Your task to perform on an android device: turn on bluetooth scan Image 0: 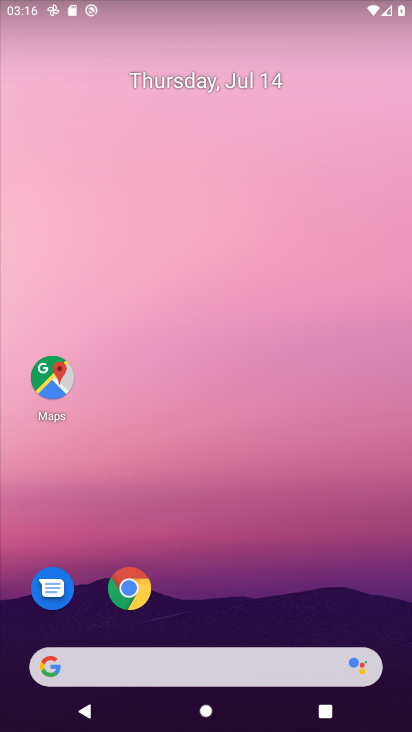
Step 0: drag from (332, 591) to (223, 92)
Your task to perform on an android device: turn on bluetooth scan Image 1: 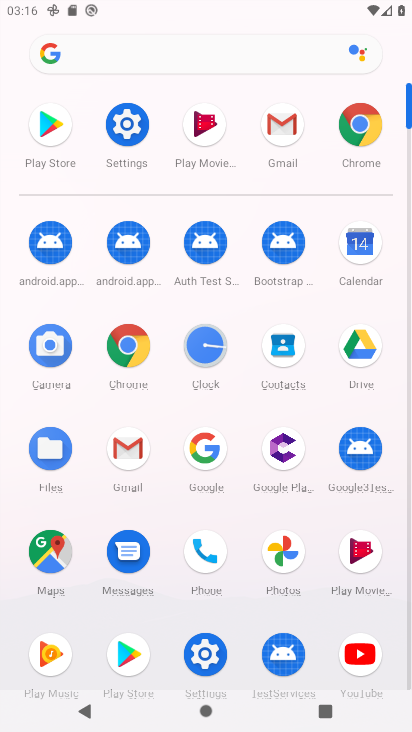
Step 1: click (139, 126)
Your task to perform on an android device: turn on bluetooth scan Image 2: 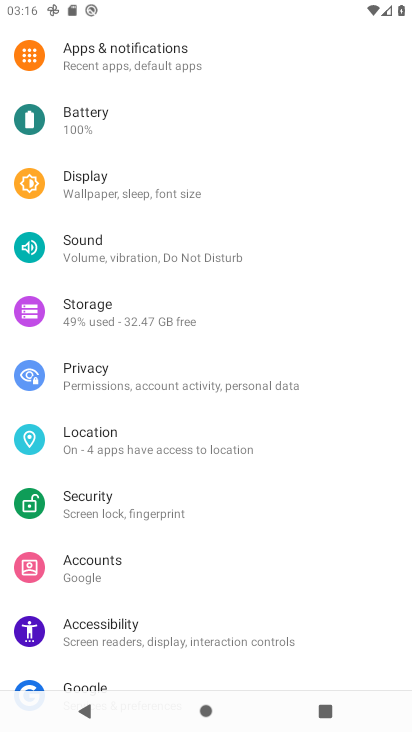
Step 2: click (148, 446)
Your task to perform on an android device: turn on bluetooth scan Image 3: 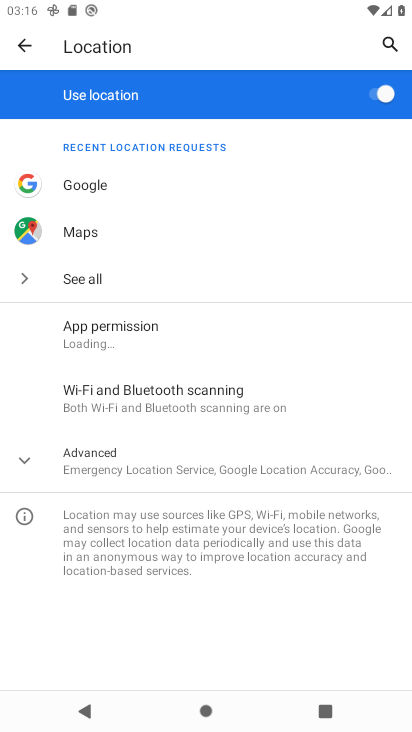
Step 3: click (191, 398)
Your task to perform on an android device: turn on bluetooth scan Image 4: 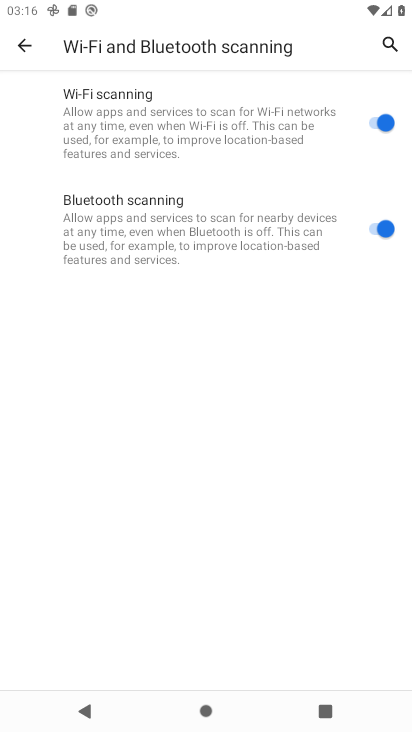
Step 4: task complete